Your task to perform on an android device: Open eBay Image 0: 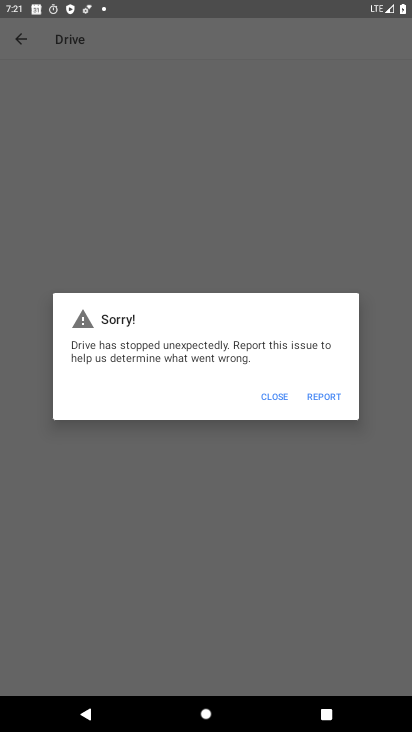
Step 0: press home button
Your task to perform on an android device: Open eBay Image 1: 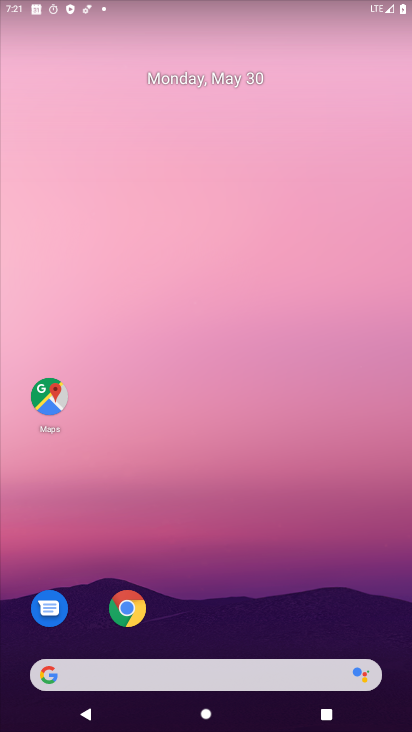
Step 1: click (125, 605)
Your task to perform on an android device: Open eBay Image 2: 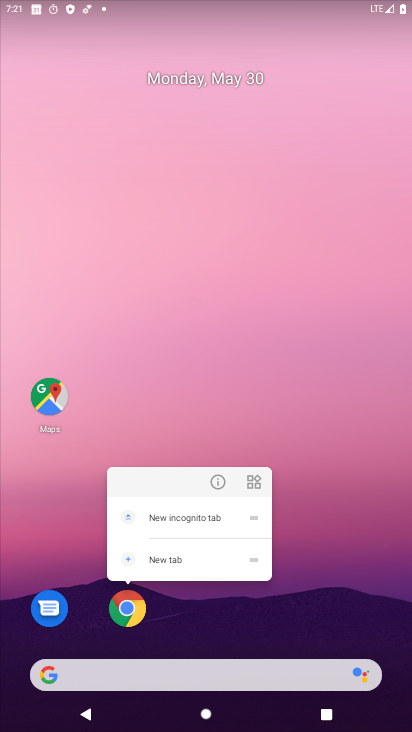
Step 2: click (226, 480)
Your task to perform on an android device: Open eBay Image 3: 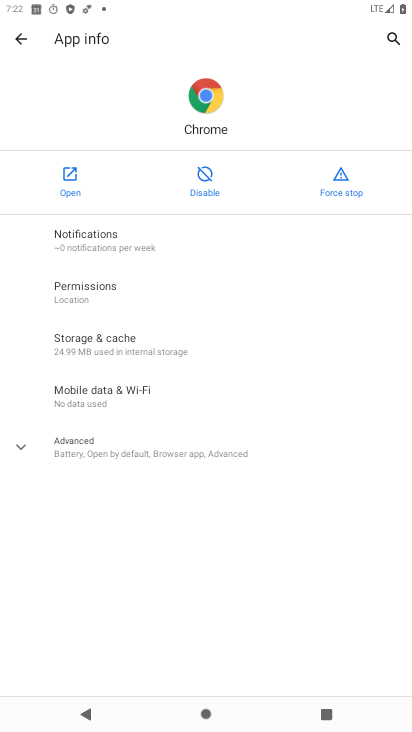
Step 3: click (82, 184)
Your task to perform on an android device: Open eBay Image 4: 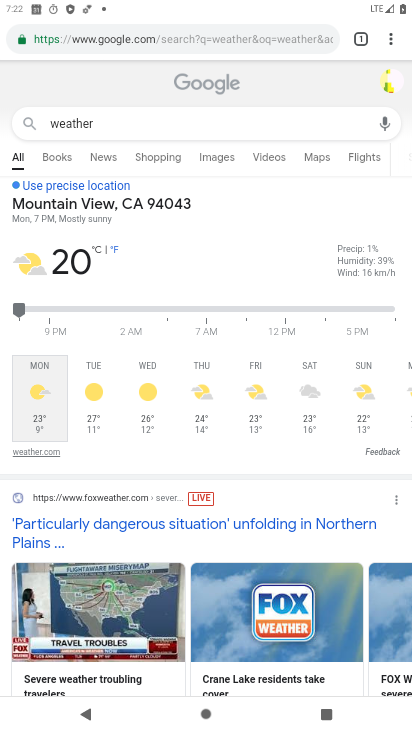
Step 4: click (167, 54)
Your task to perform on an android device: Open eBay Image 5: 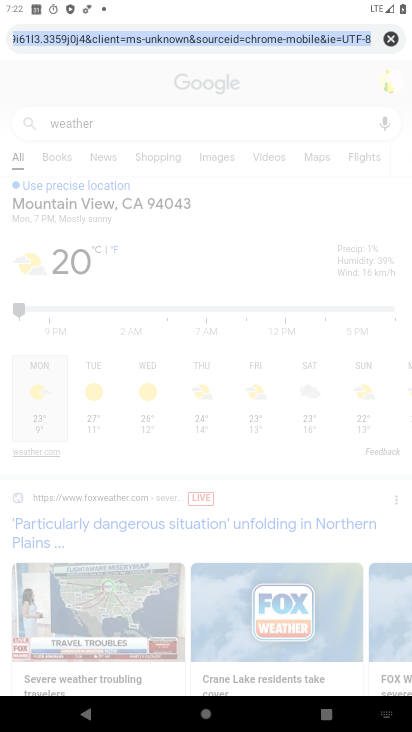
Step 5: type "eBay"
Your task to perform on an android device: Open eBay Image 6: 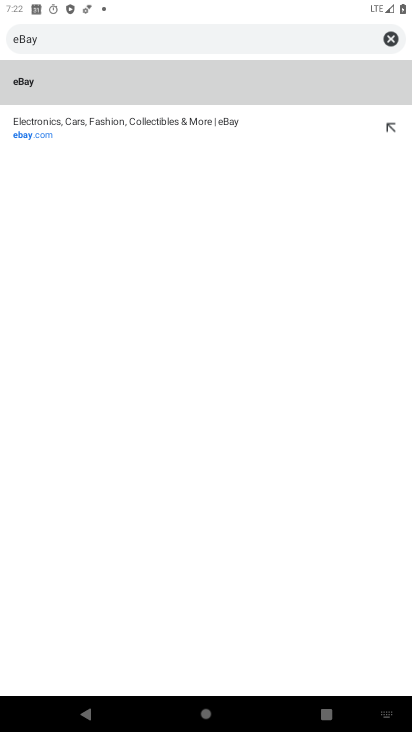
Step 6: click (86, 90)
Your task to perform on an android device: Open eBay Image 7: 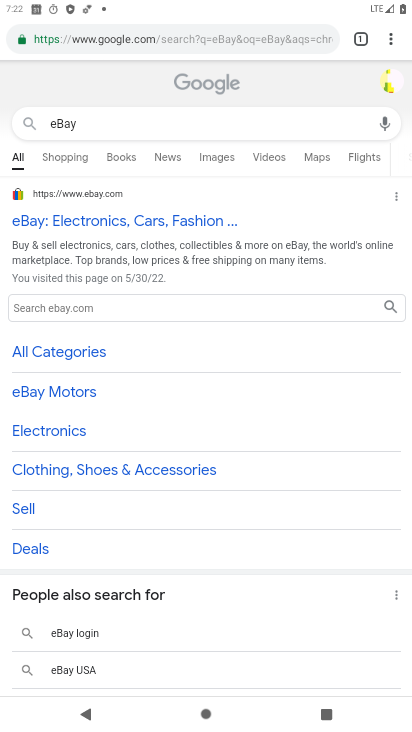
Step 7: task complete